Your task to perform on an android device: Open Google Image 0: 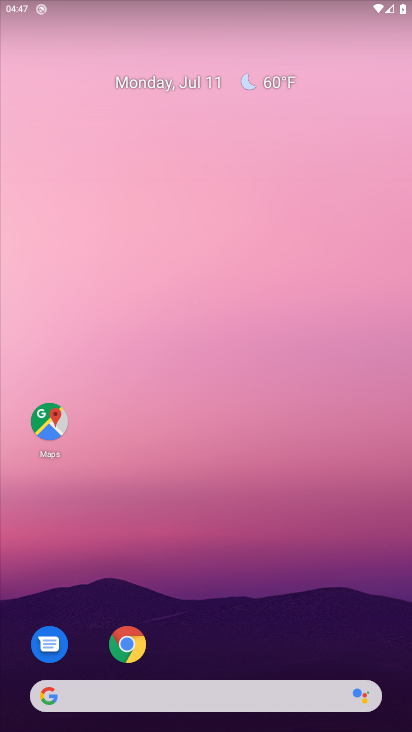
Step 0: drag from (131, 583) to (81, 7)
Your task to perform on an android device: Open Google Image 1: 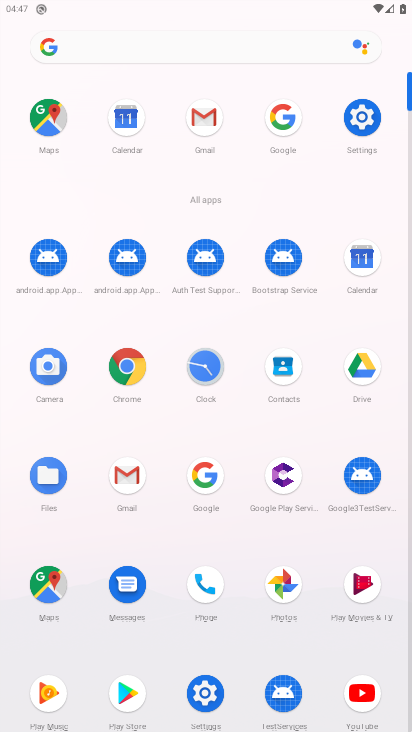
Step 1: click (211, 476)
Your task to perform on an android device: Open Google Image 2: 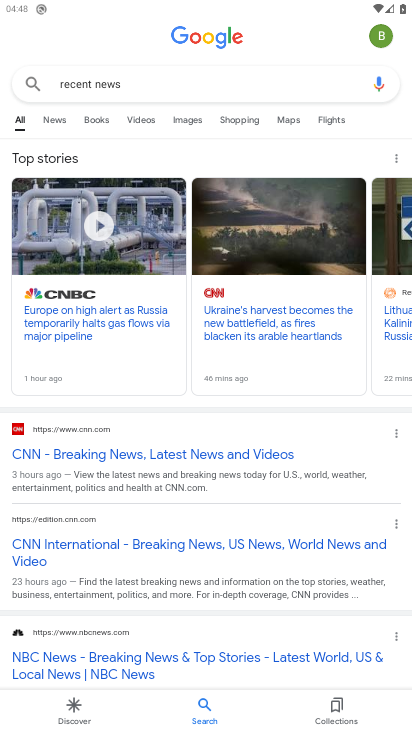
Step 2: task complete